Your task to perform on an android device: turn on showing notifications on the lock screen Image 0: 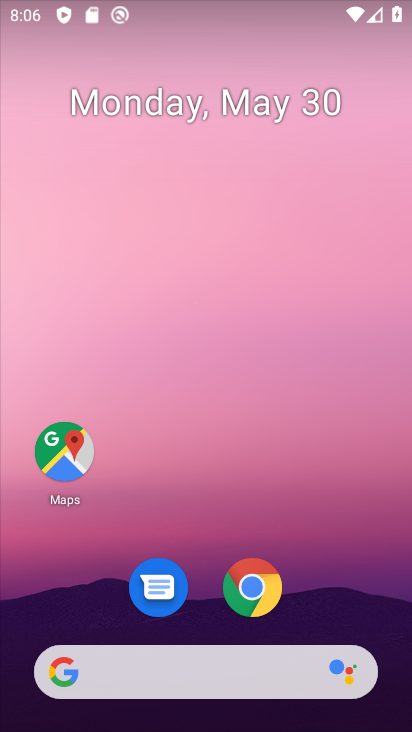
Step 0: drag from (206, 581) to (243, 60)
Your task to perform on an android device: turn on showing notifications on the lock screen Image 1: 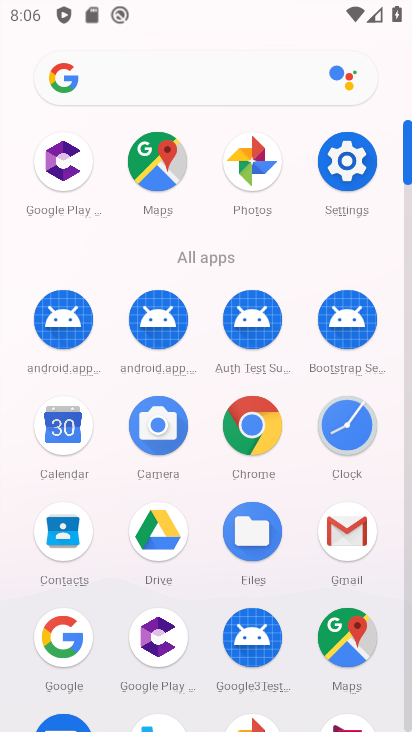
Step 1: click (347, 165)
Your task to perform on an android device: turn on showing notifications on the lock screen Image 2: 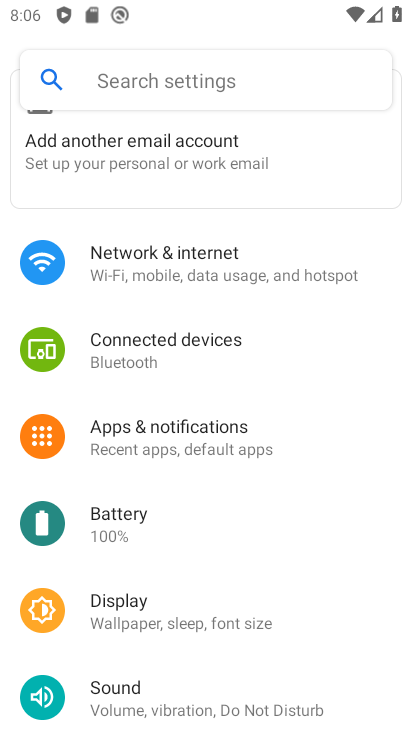
Step 2: click (205, 453)
Your task to perform on an android device: turn on showing notifications on the lock screen Image 3: 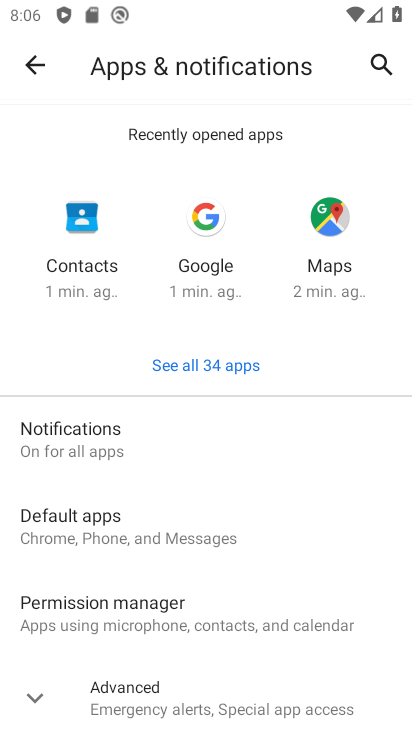
Step 3: click (146, 447)
Your task to perform on an android device: turn on showing notifications on the lock screen Image 4: 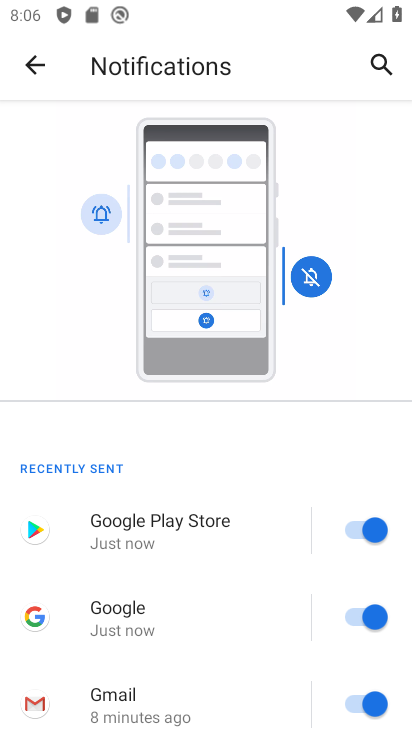
Step 4: drag from (169, 677) to (223, 316)
Your task to perform on an android device: turn on showing notifications on the lock screen Image 5: 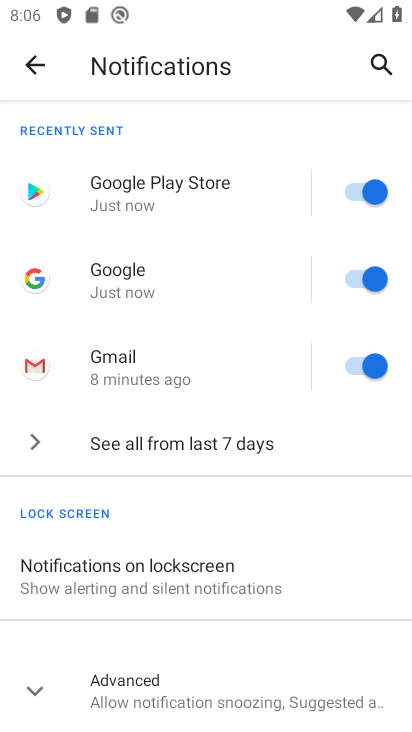
Step 5: click (178, 586)
Your task to perform on an android device: turn on showing notifications on the lock screen Image 6: 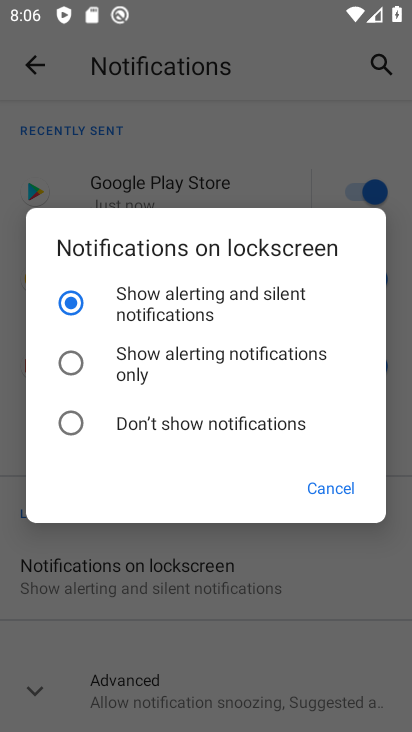
Step 6: task complete